Your task to perform on an android device: check storage Image 0: 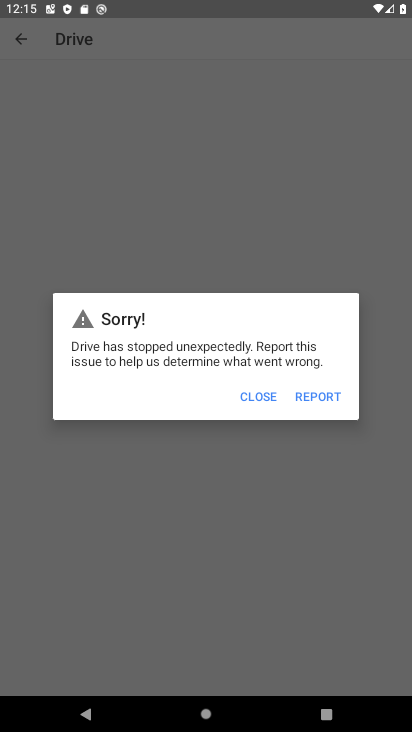
Step 0: press home button
Your task to perform on an android device: check storage Image 1: 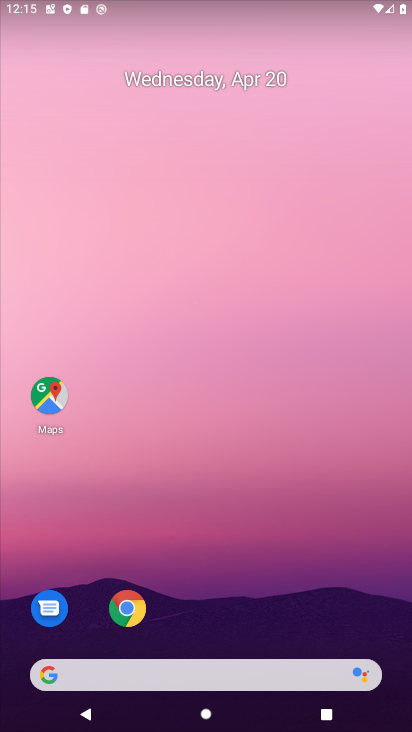
Step 1: drag from (236, 624) to (266, 143)
Your task to perform on an android device: check storage Image 2: 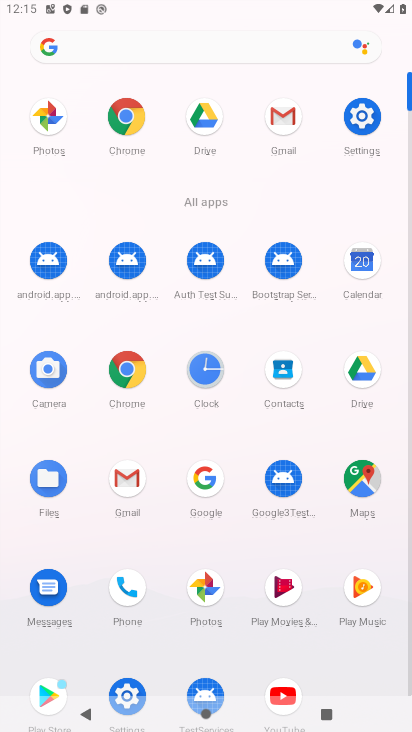
Step 2: click (357, 122)
Your task to perform on an android device: check storage Image 3: 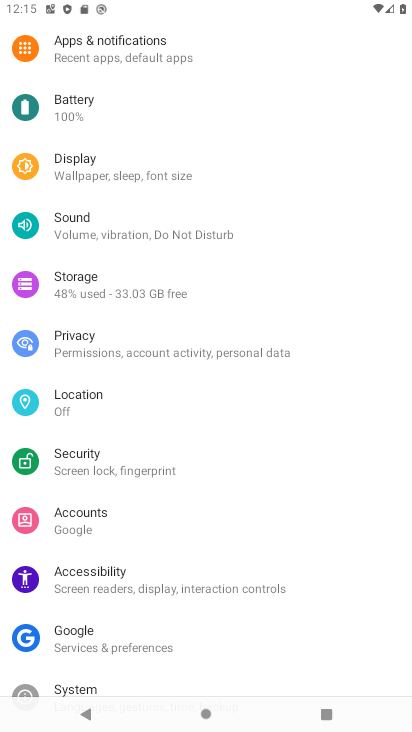
Step 3: click (135, 279)
Your task to perform on an android device: check storage Image 4: 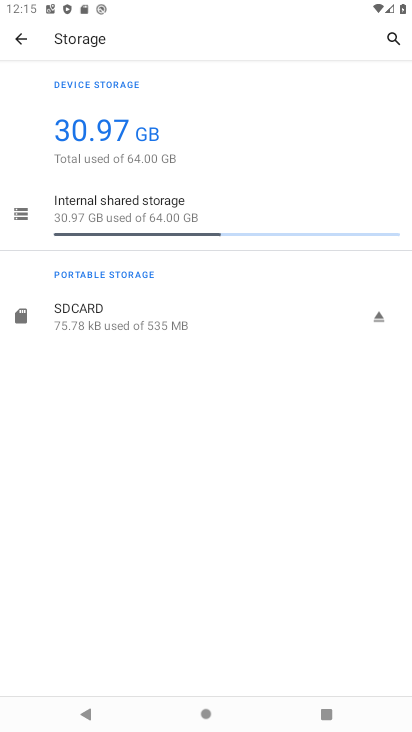
Step 4: task complete